Your task to perform on an android device: check battery use Image 0: 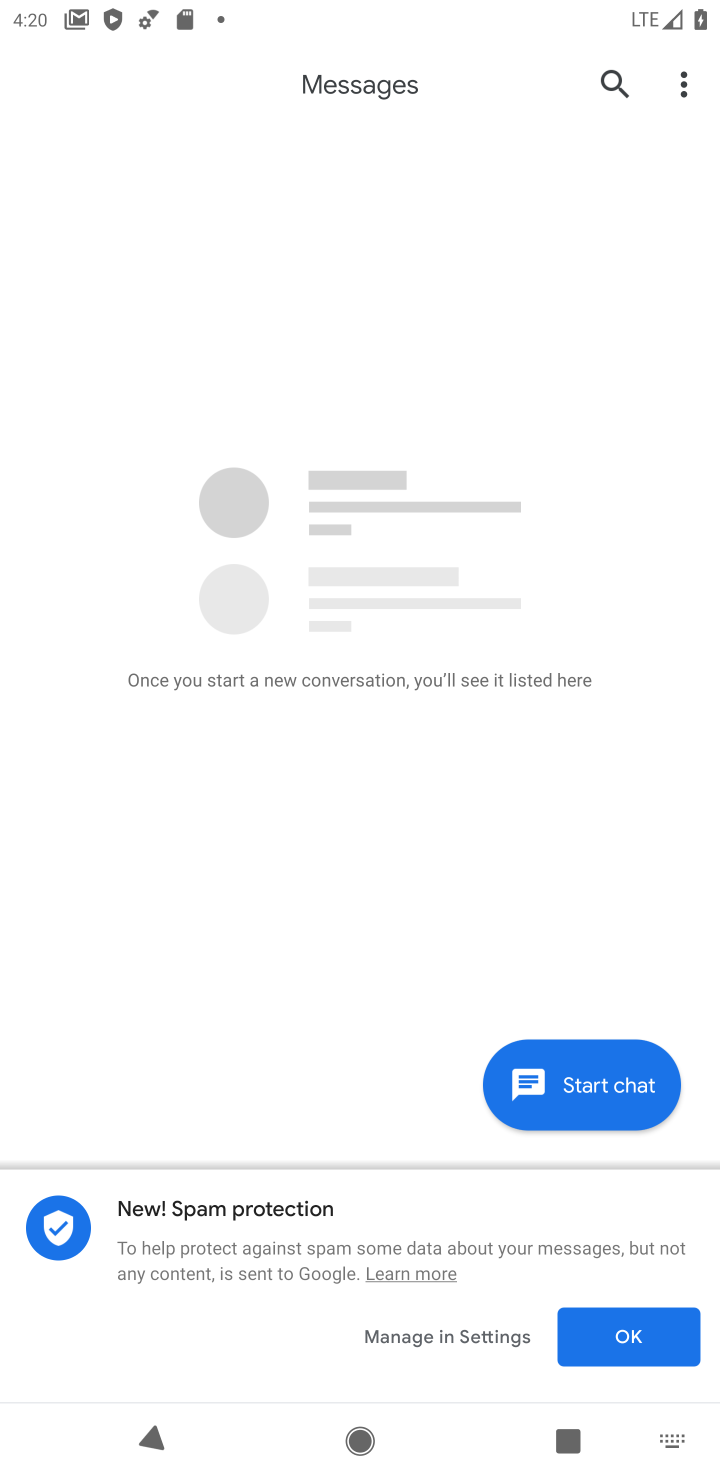
Step 0: press home button
Your task to perform on an android device: check battery use Image 1: 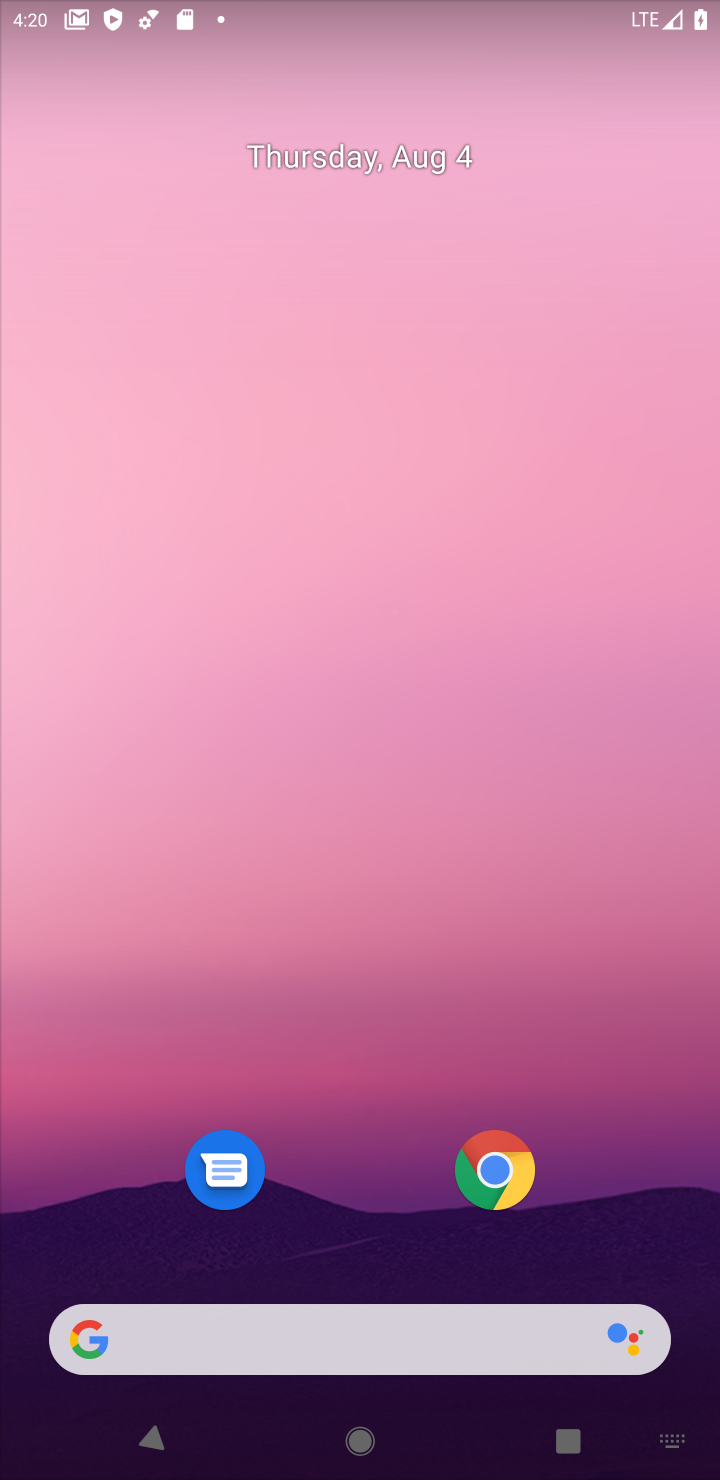
Step 1: drag from (621, 1158) to (441, 203)
Your task to perform on an android device: check battery use Image 2: 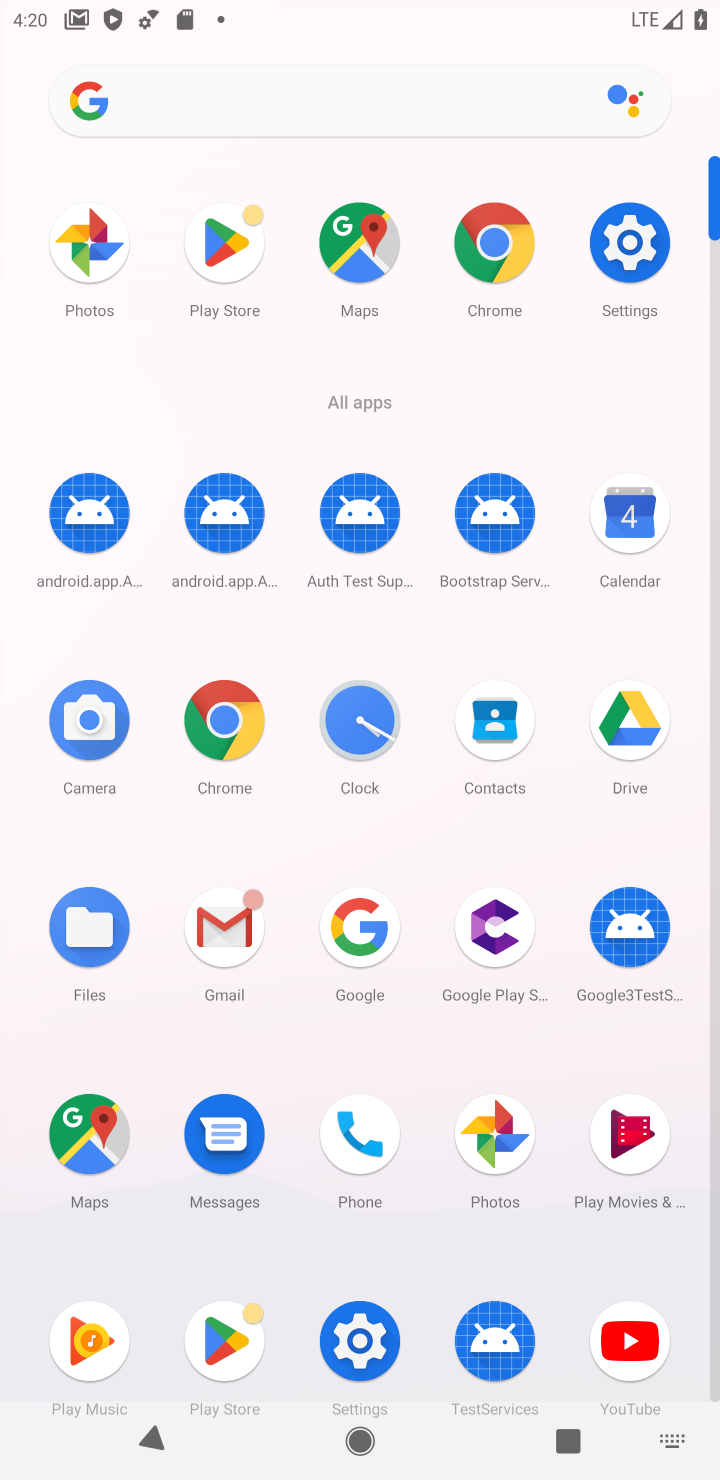
Step 2: click (629, 242)
Your task to perform on an android device: check battery use Image 3: 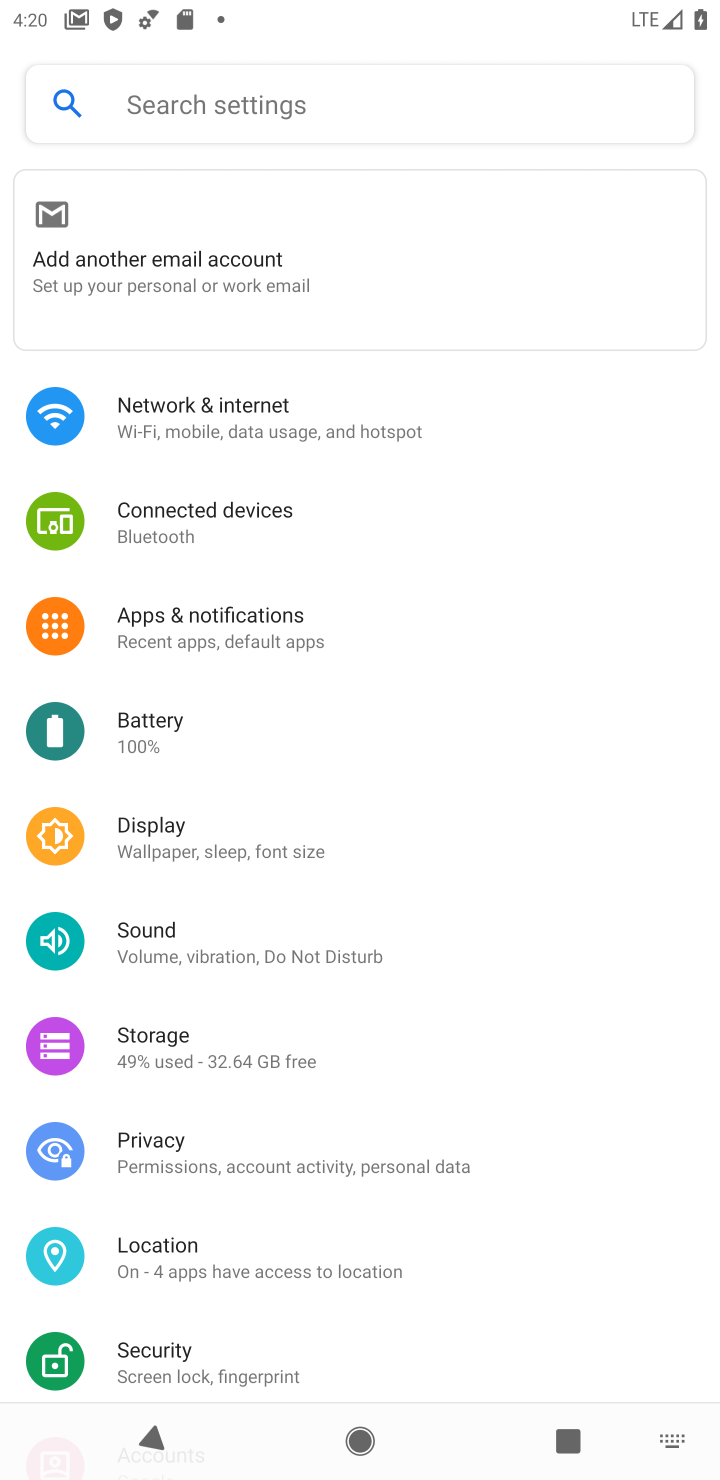
Step 3: click (264, 740)
Your task to perform on an android device: check battery use Image 4: 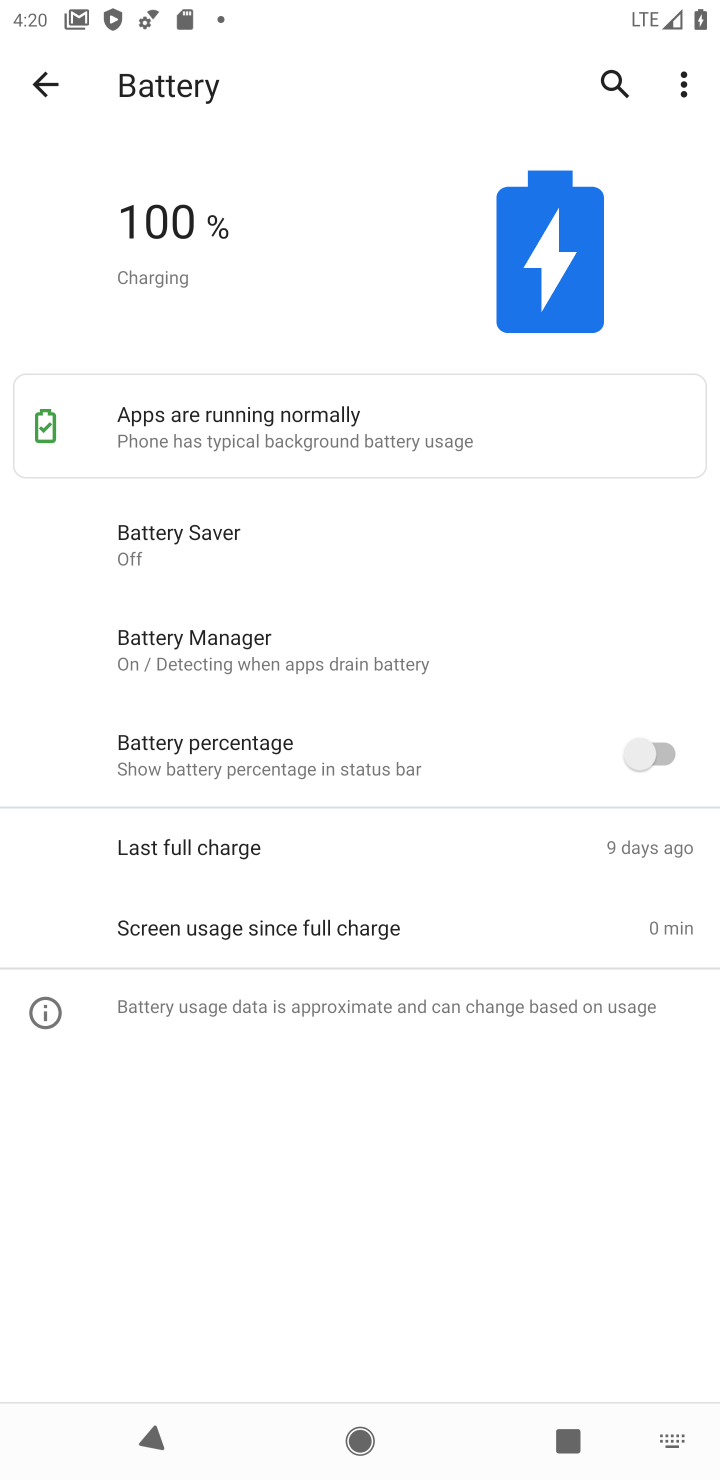
Step 4: click (678, 83)
Your task to perform on an android device: check battery use Image 5: 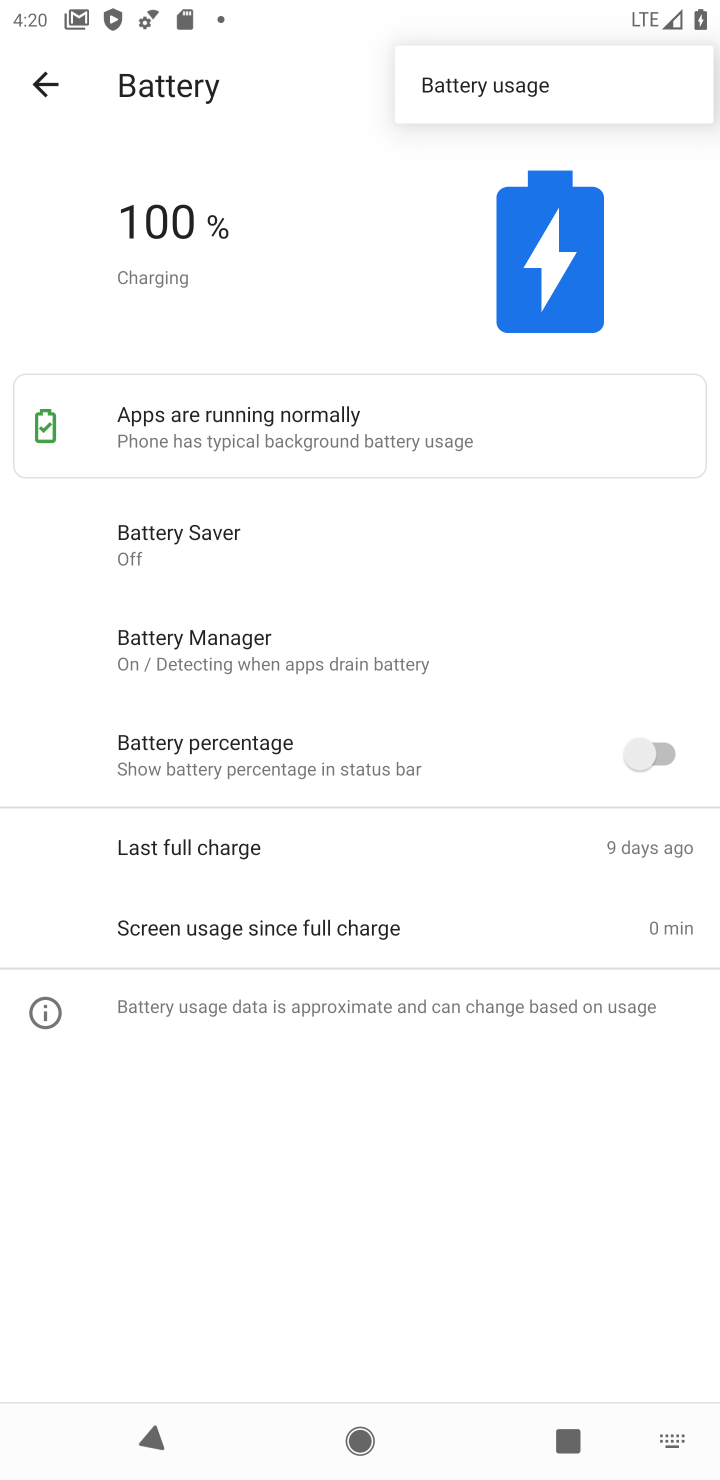
Step 5: click (596, 87)
Your task to perform on an android device: check battery use Image 6: 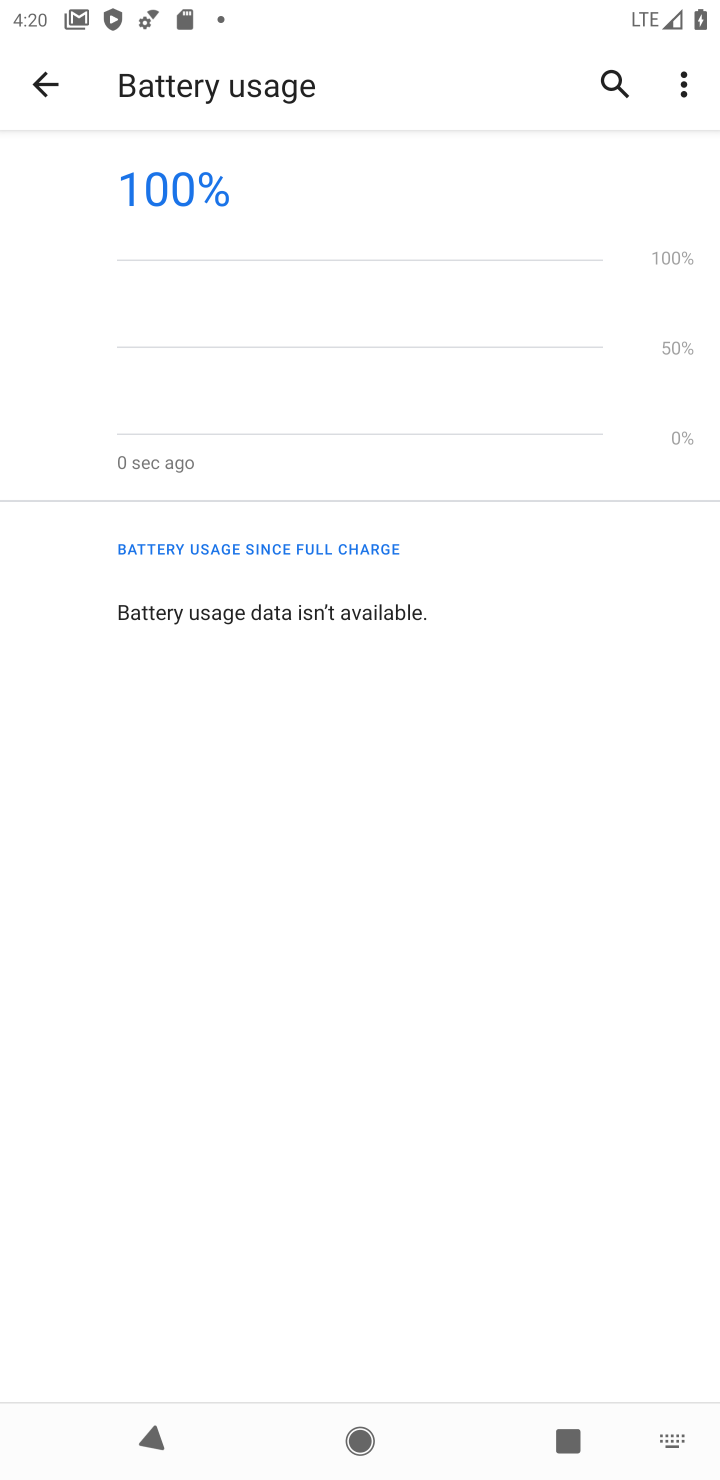
Step 6: task complete